Your task to perform on an android device: open sync settings in chrome Image 0: 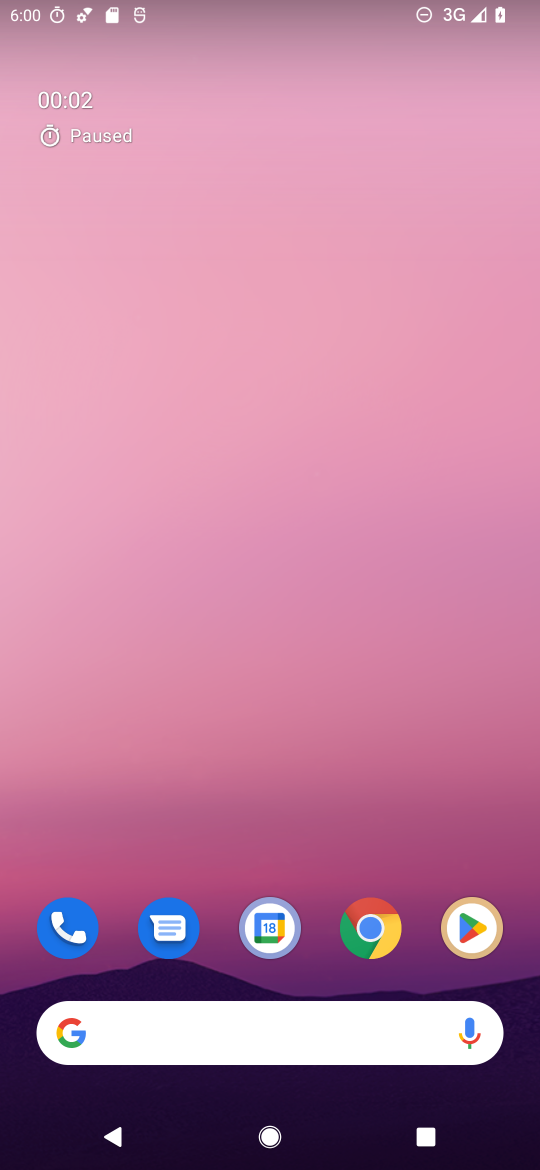
Step 0: drag from (348, 729) to (431, 40)
Your task to perform on an android device: open sync settings in chrome Image 1: 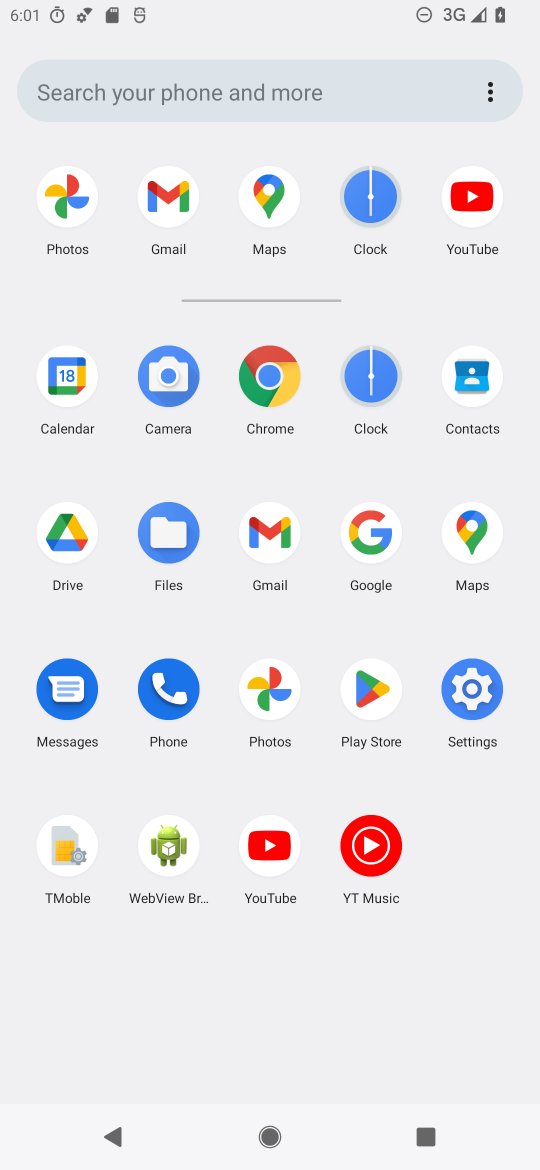
Step 1: click (268, 371)
Your task to perform on an android device: open sync settings in chrome Image 2: 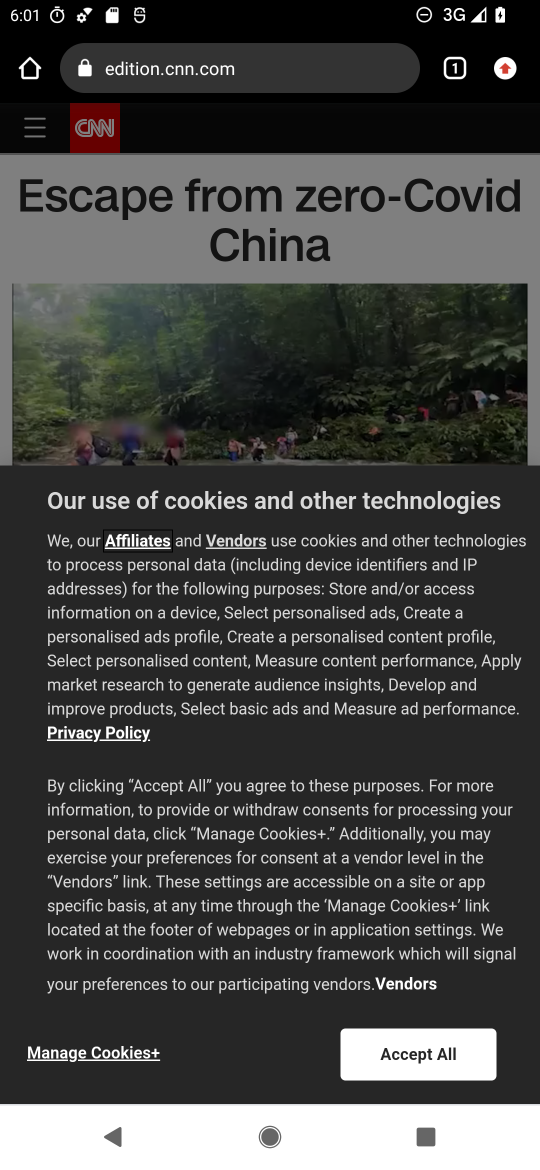
Step 2: drag from (529, 60) to (284, 889)
Your task to perform on an android device: open sync settings in chrome Image 3: 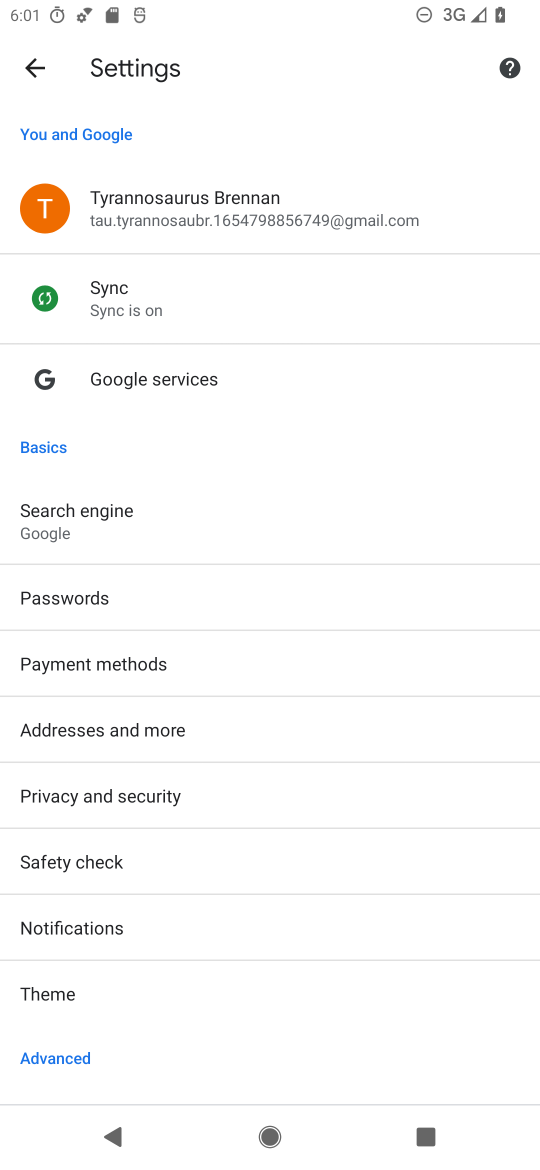
Step 3: click (154, 294)
Your task to perform on an android device: open sync settings in chrome Image 4: 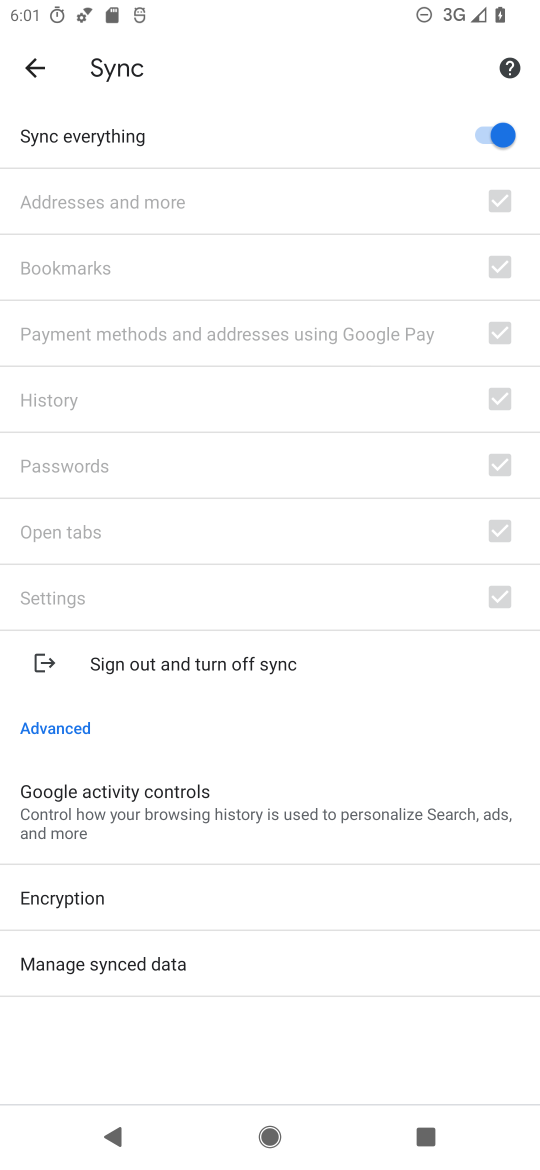
Step 4: task complete